Your task to perform on an android device: clear history in the chrome app Image 0: 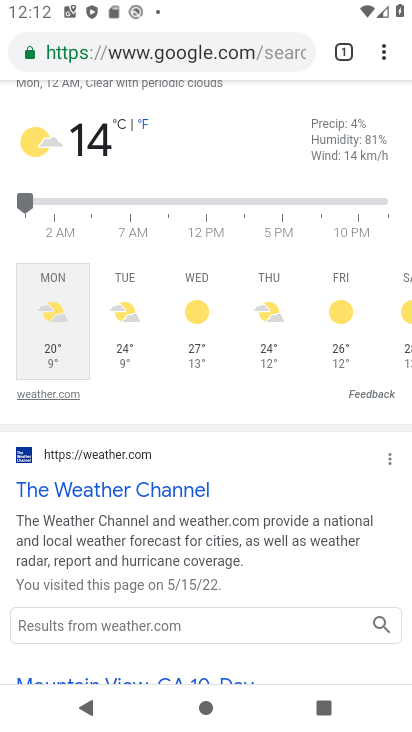
Step 0: drag from (387, 55) to (244, 298)
Your task to perform on an android device: clear history in the chrome app Image 1: 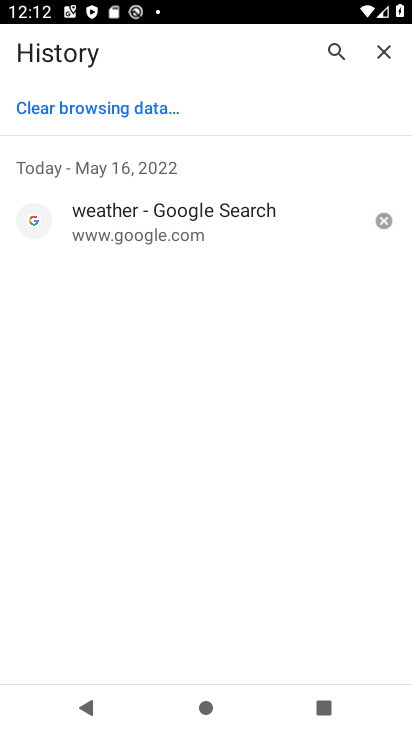
Step 1: click (94, 103)
Your task to perform on an android device: clear history in the chrome app Image 2: 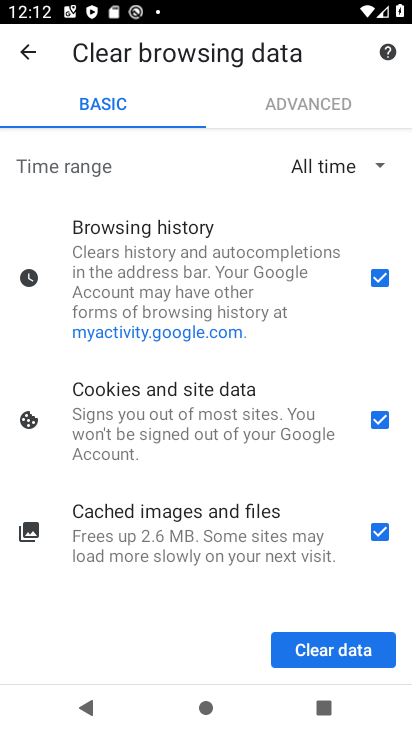
Step 2: click (350, 650)
Your task to perform on an android device: clear history in the chrome app Image 3: 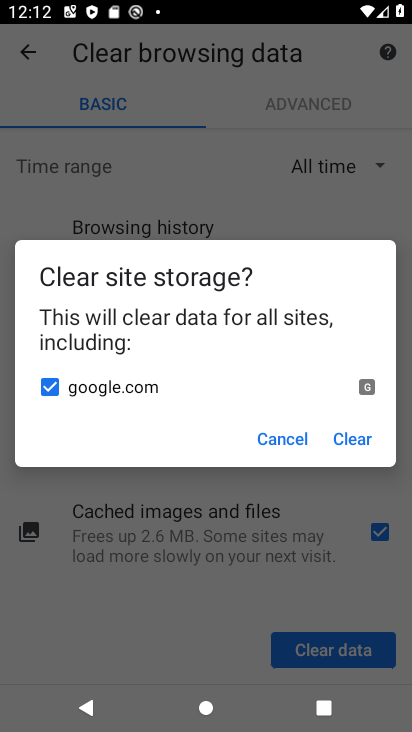
Step 3: click (357, 419)
Your task to perform on an android device: clear history in the chrome app Image 4: 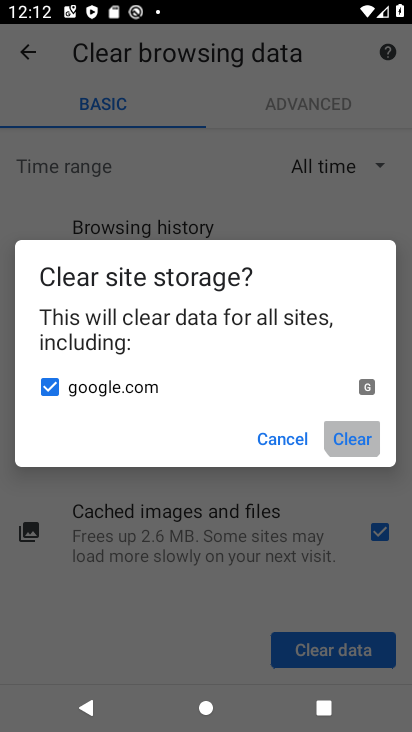
Step 4: click (354, 434)
Your task to perform on an android device: clear history in the chrome app Image 5: 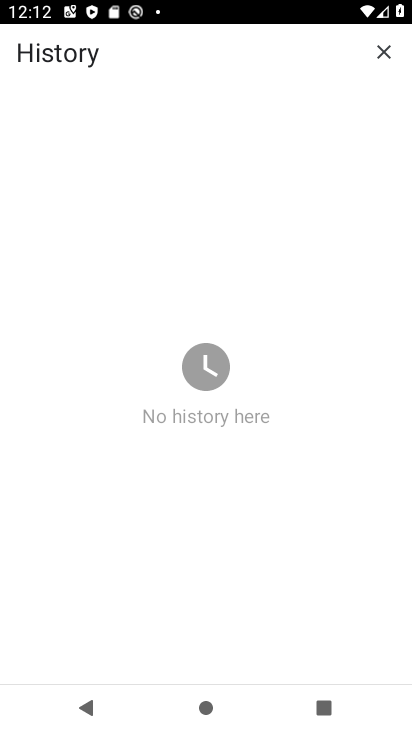
Step 5: task complete